Your task to perform on an android device: Open calendar and show me the first week of next month Image 0: 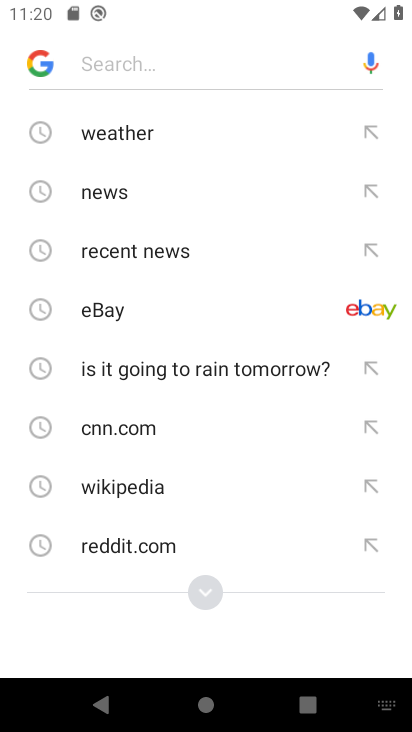
Step 0: press back button
Your task to perform on an android device: Open calendar and show me the first week of next month Image 1: 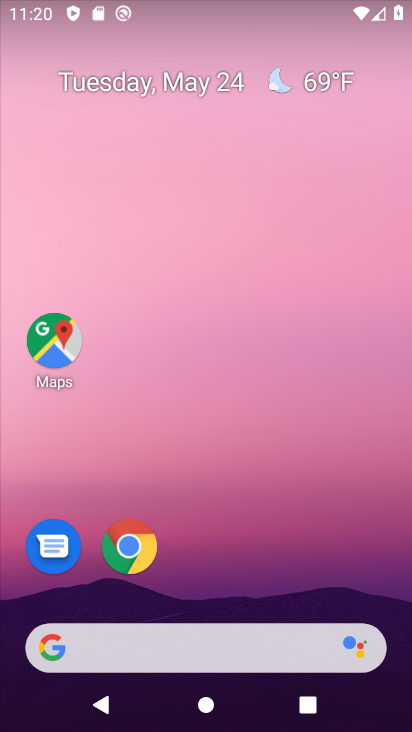
Step 1: drag from (245, 585) to (51, 414)
Your task to perform on an android device: Open calendar and show me the first week of next month Image 2: 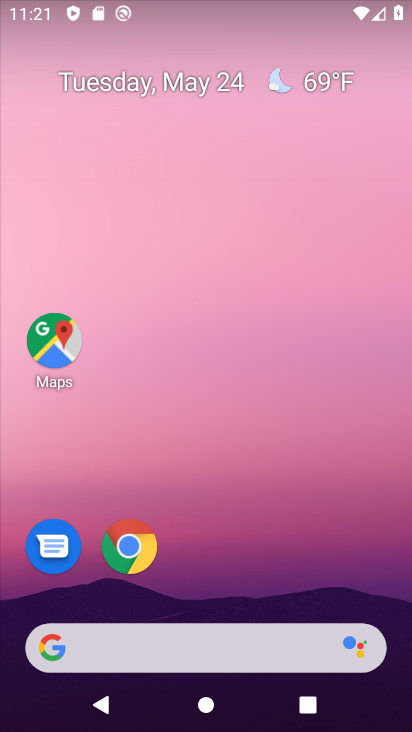
Step 2: drag from (227, 589) to (261, 76)
Your task to perform on an android device: Open calendar and show me the first week of next month Image 3: 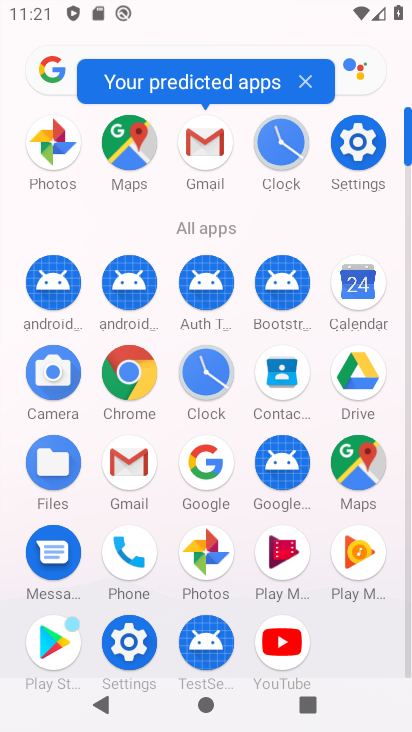
Step 3: click (357, 281)
Your task to perform on an android device: Open calendar and show me the first week of next month Image 4: 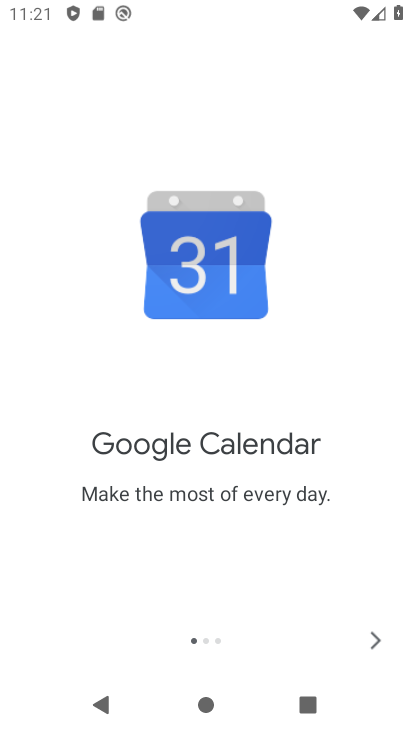
Step 4: click (368, 627)
Your task to perform on an android device: Open calendar and show me the first week of next month Image 5: 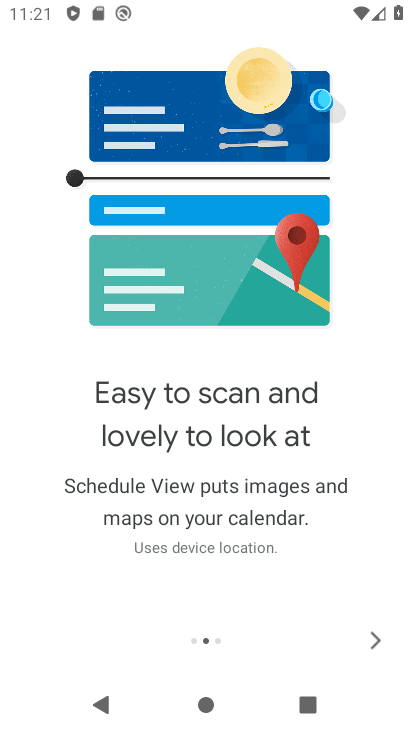
Step 5: click (368, 627)
Your task to perform on an android device: Open calendar and show me the first week of next month Image 6: 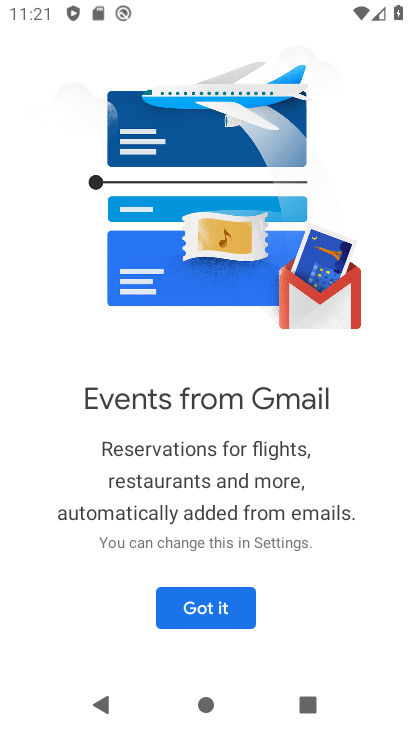
Step 6: click (212, 608)
Your task to perform on an android device: Open calendar and show me the first week of next month Image 7: 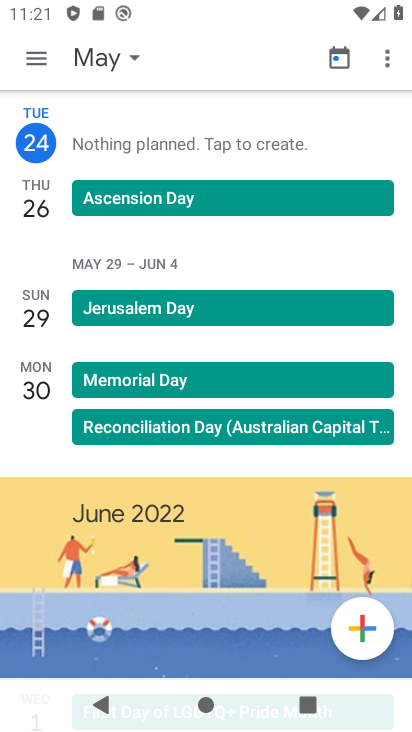
Step 7: click (25, 70)
Your task to perform on an android device: Open calendar and show me the first week of next month Image 8: 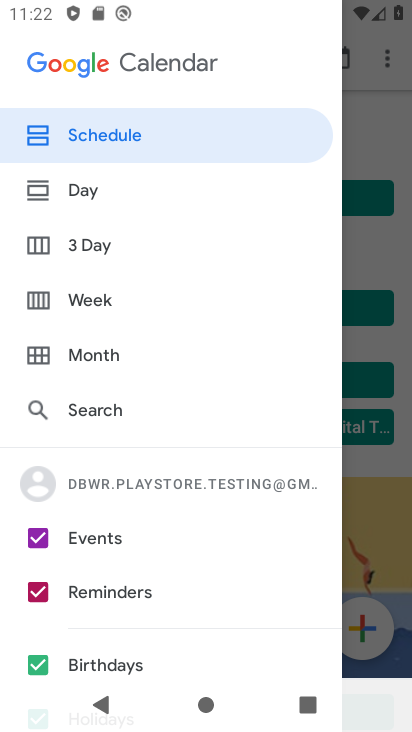
Step 8: click (64, 290)
Your task to perform on an android device: Open calendar and show me the first week of next month Image 9: 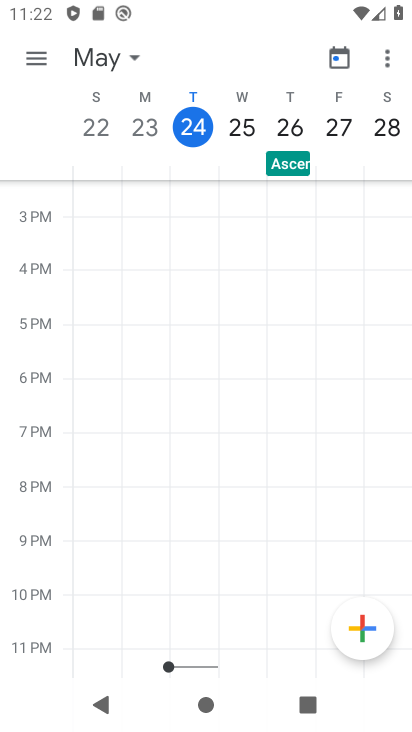
Step 9: task complete